Your task to perform on an android device: Open Google Maps and go to "Timeline" Image 0: 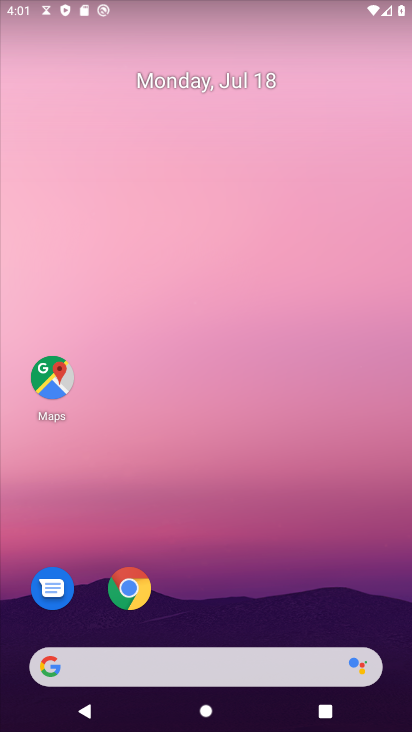
Step 0: click (48, 379)
Your task to perform on an android device: Open Google Maps and go to "Timeline" Image 1: 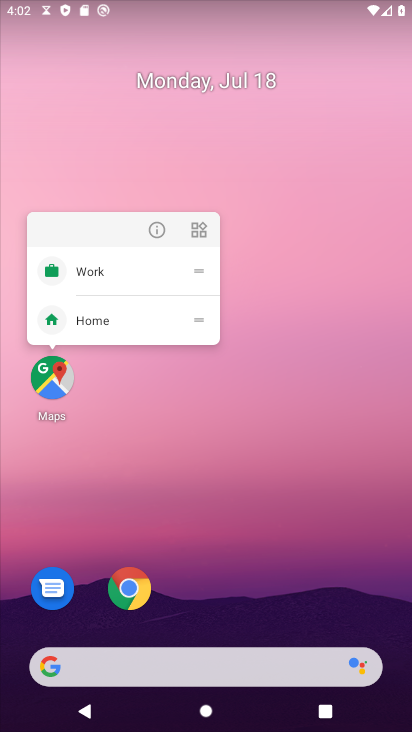
Step 1: click (43, 391)
Your task to perform on an android device: Open Google Maps and go to "Timeline" Image 2: 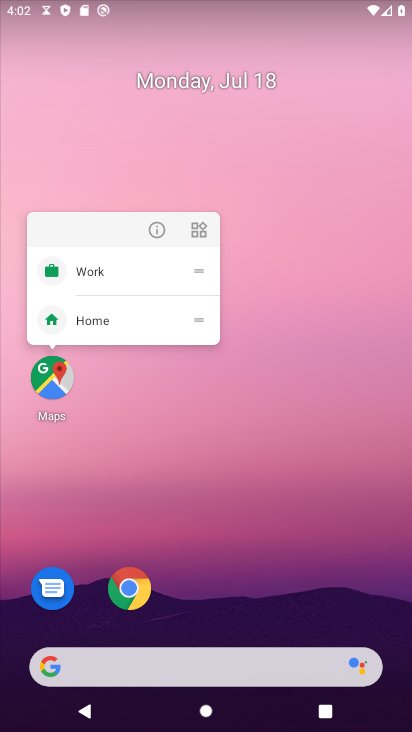
Step 2: click (72, 345)
Your task to perform on an android device: Open Google Maps and go to "Timeline" Image 3: 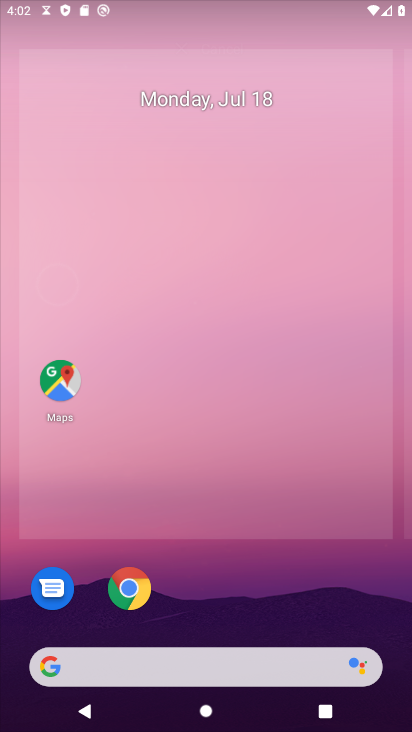
Step 3: click (53, 383)
Your task to perform on an android device: Open Google Maps and go to "Timeline" Image 4: 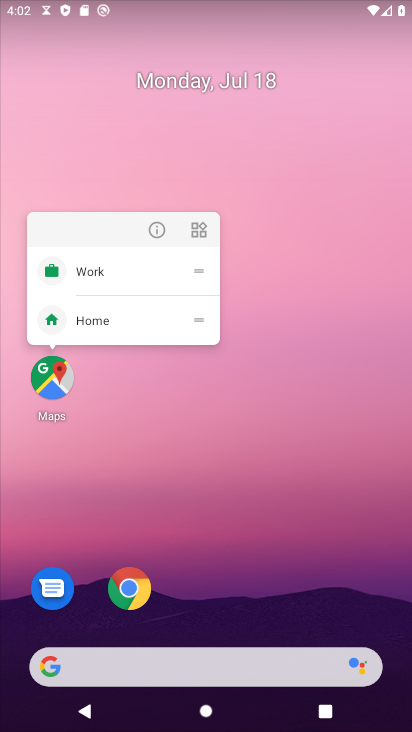
Step 4: click (47, 379)
Your task to perform on an android device: Open Google Maps and go to "Timeline" Image 5: 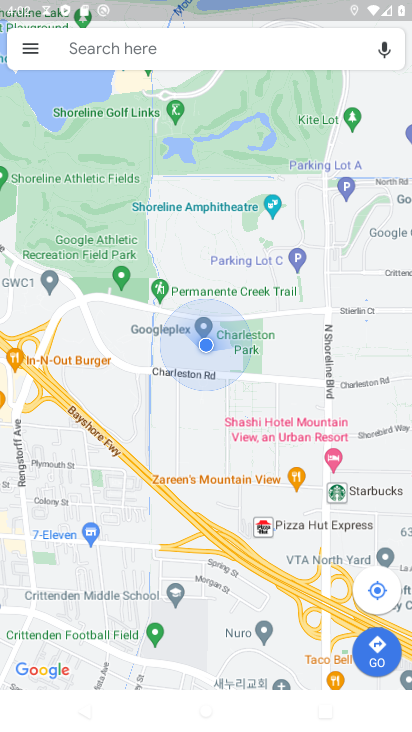
Step 5: click (35, 48)
Your task to perform on an android device: Open Google Maps and go to "Timeline" Image 6: 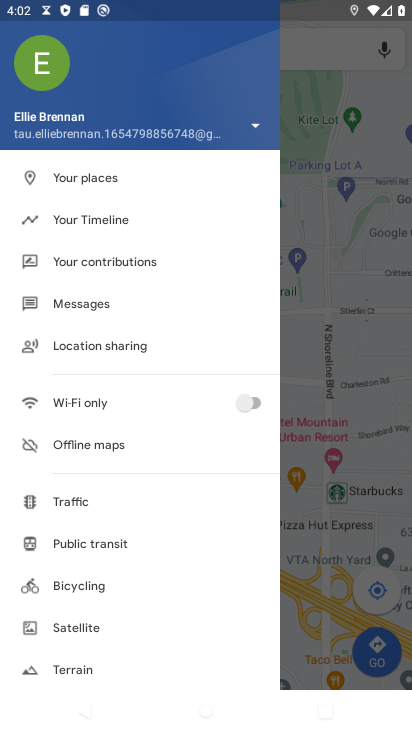
Step 6: click (90, 206)
Your task to perform on an android device: Open Google Maps and go to "Timeline" Image 7: 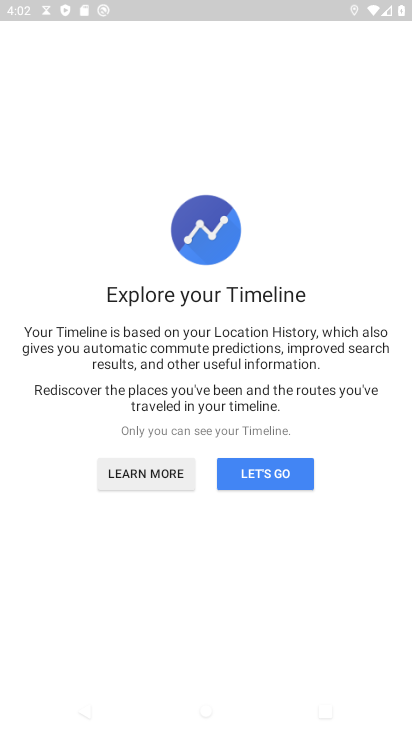
Step 7: click (259, 468)
Your task to perform on an android device: Open Google Maps and go to "Timeline" Image 8: 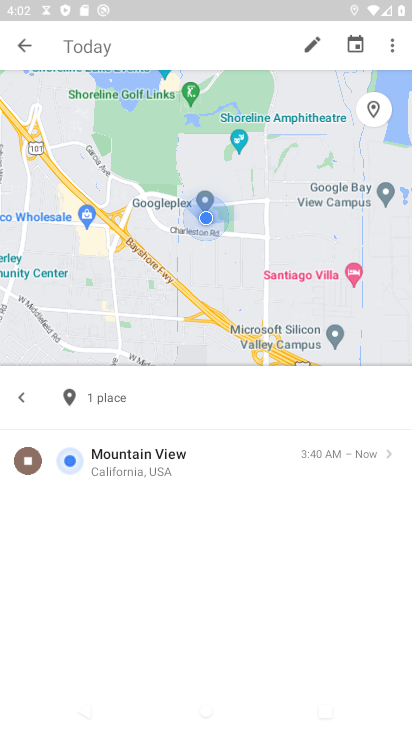
Step 8: task complete